Your task to perform on an android device: Search for seafood restaurants on Google Maps Image 0: 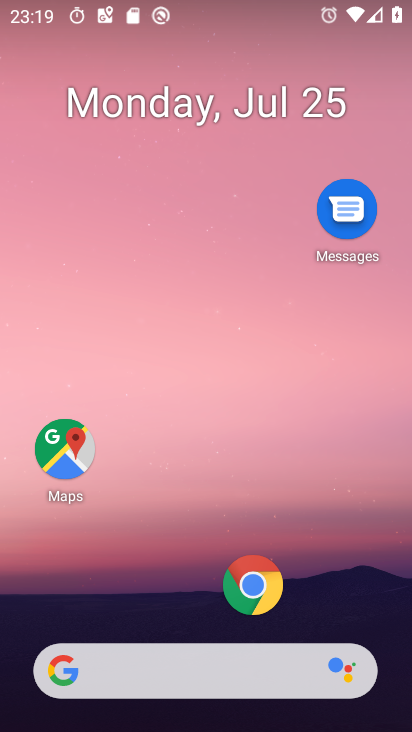
Step 0: press home button
Your task to perform on an android device: Search for seafood restaurants on Google Maps Image 1: 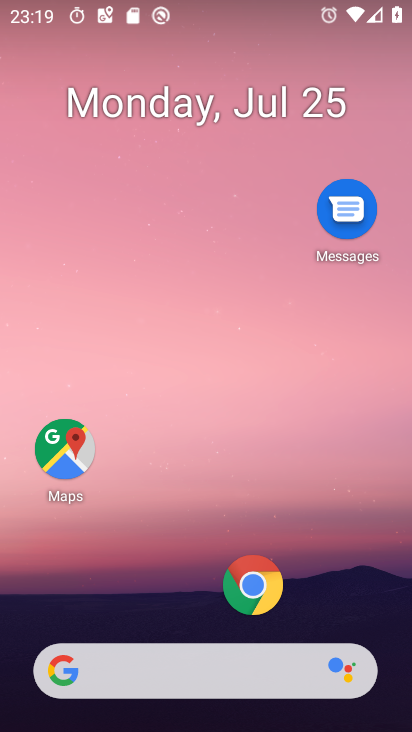
Step 1: click (62, 454)
Your task to perform on an android device: Search for seafood restaurants on Google Maps Image 2: 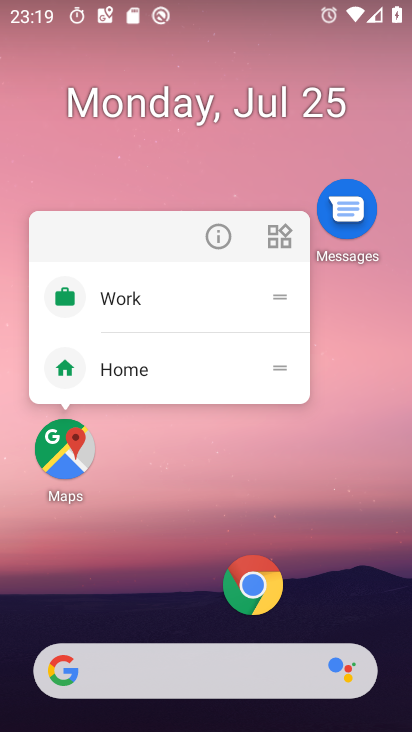
Step 2: click (66, 451)
Your task to perform on an android device: Search for seafood restaurants on Google Maps Image 3: 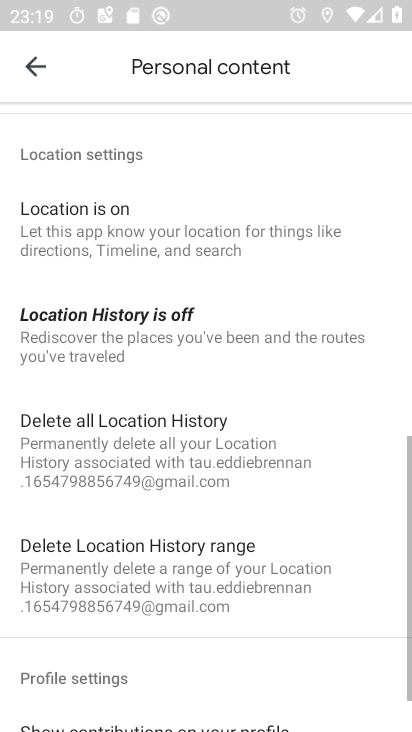
Step 3: click (30, 69)
Your task to perform on an android device: Search for seafood restaurants on Google Maps Image 4: 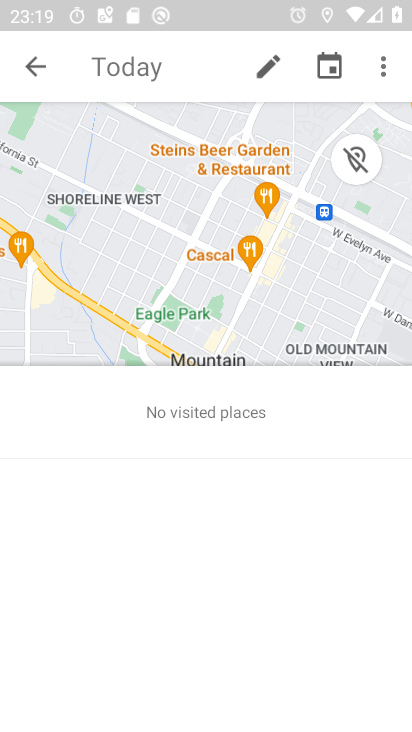
Step 4: click (39, 73)
Your task to perform on an android device: Search for seafood restaurants on Google Maps Image 5: 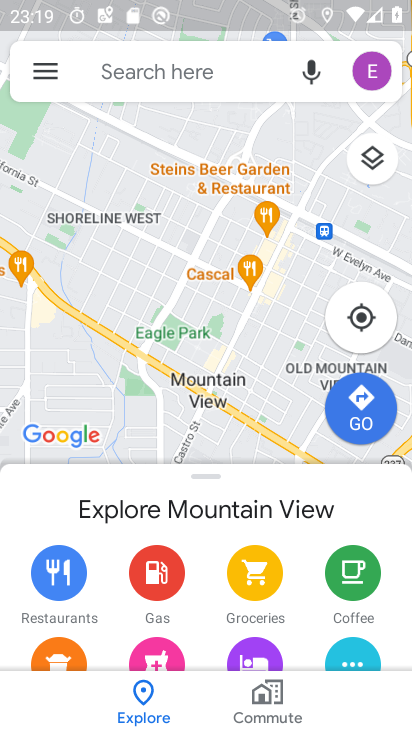
Step 5: click (168, 71)
Your task to perform on an android device: Search for seafood restaurants on Google Maps Image 6: 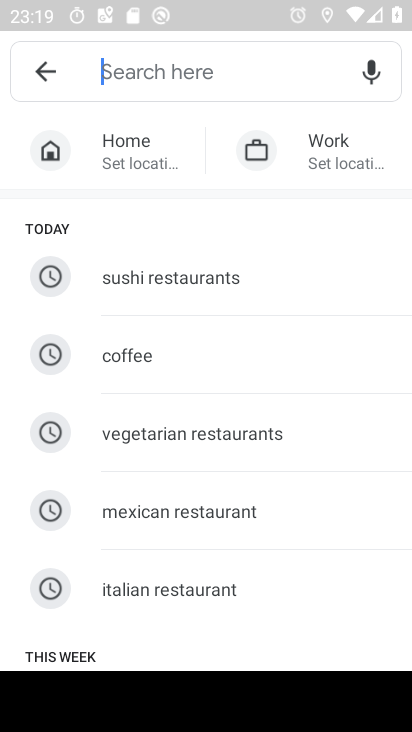
Step 6: drag from (255, 550) to (343, 129)
Your task to perform on an android device: Search for seafood restaurants on Google Maps Image 7: 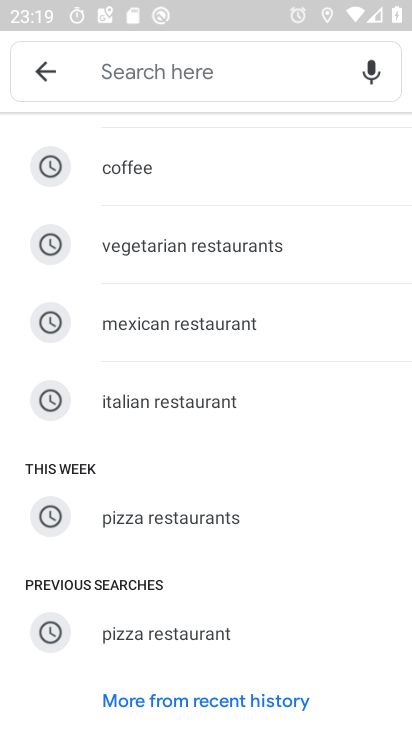
Step 7: drag from (245, 564) to (345, 234)
Your task to perform on an android device: Search for seafood restaurants on Google Maps Image 8: 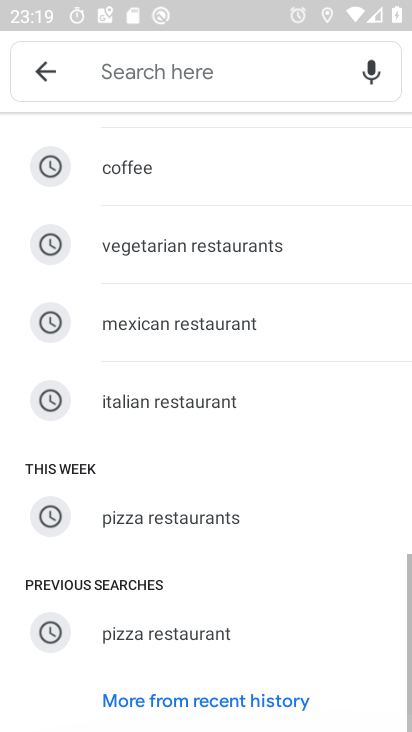
Step 8: drag from (338, 239) to (262, 649)
Your task to perform on an android device: Search for seafood restaurants on Google Maps Image 9: 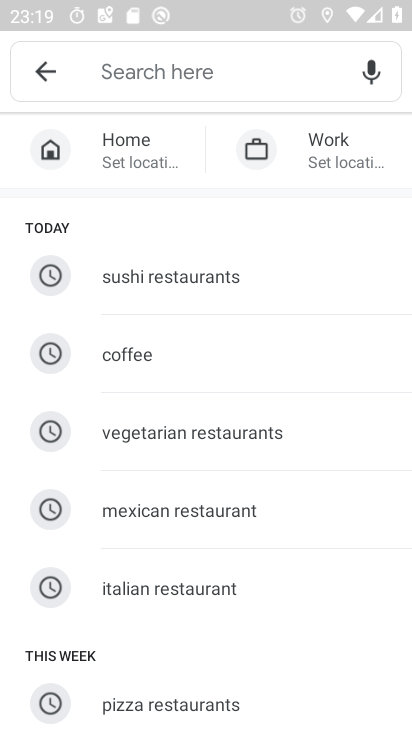
Step 9: click (109, 75)
Your task to perform on an android device: Search for seafood restaurants on Google Maps Image 10: 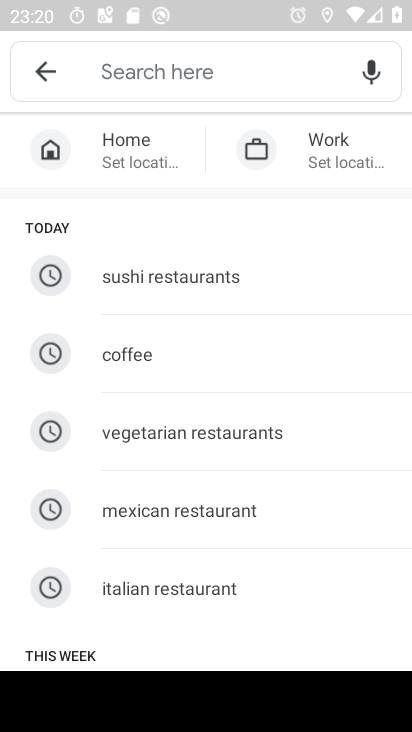
Step 10: type "seafood restaurants "
Your task to perform on an android device: Search for seafood restaurants on Google Maps Image 11: 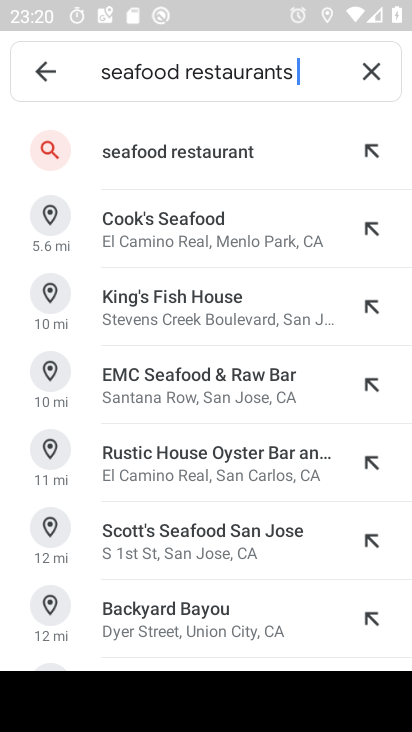
Step 11: click (196, 150)
Your task to perform on an android device: Search for seafood restaurants on Google Maps Image 12: 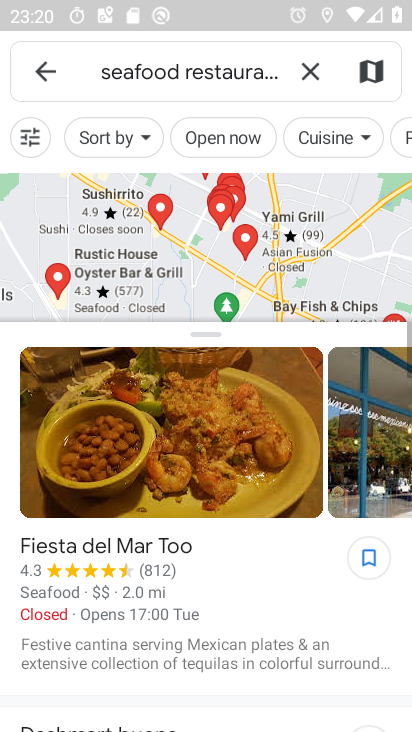
Step 12: task complete